Your task to perform on an android device: all mails in gmail Image 0: 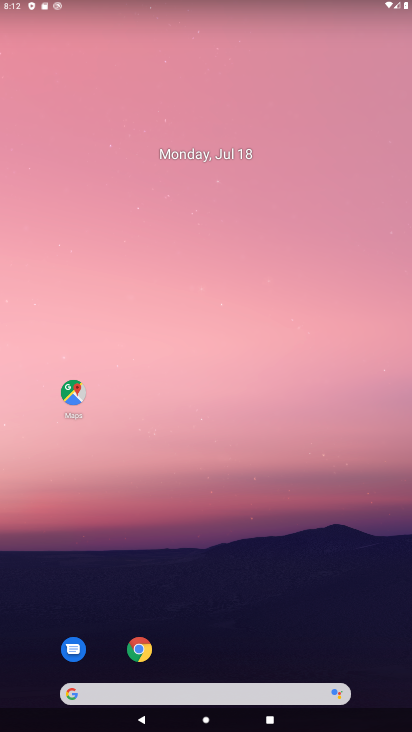
Step 0: drag from (236, 513) to (210, 293)
Your task to perform on an android device: all mails in gmail Image 1: 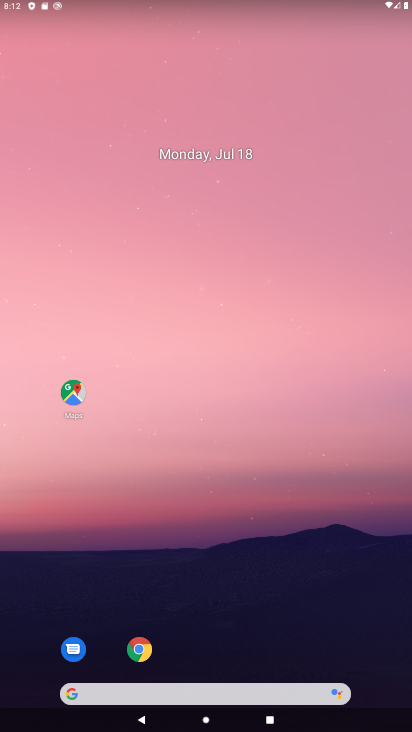
Step 1: drag from (230, 540) to (211, 196)
Your task to perform on an android device: all mails in gmail Image 2: 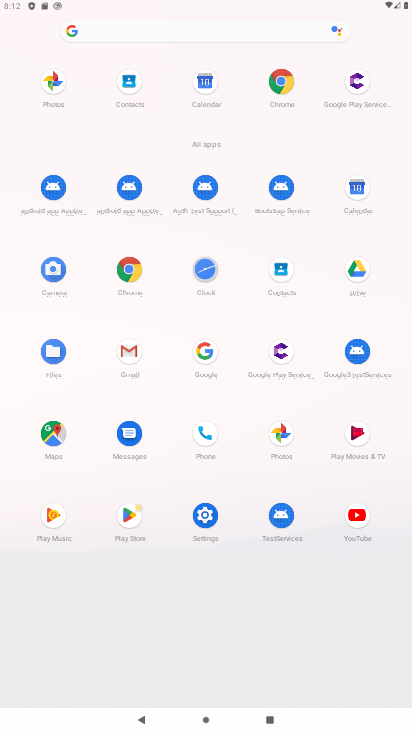
Step 2: drag from (131, 351) to (165, 385)
Your task to perform on an android device: all mails in gmail Image 3: 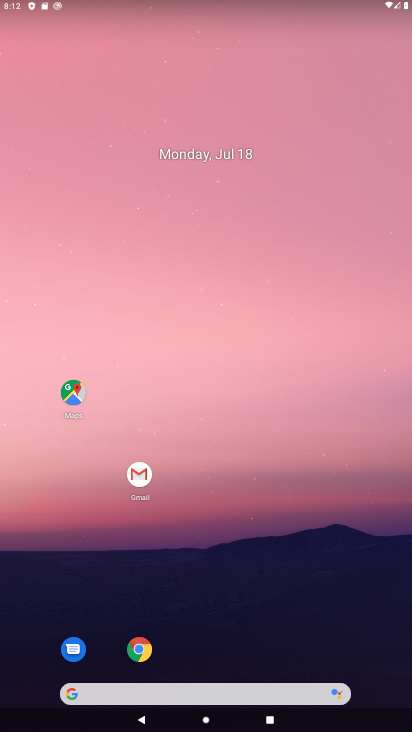
Step 3: click (138, 469)
Your task to perform on an android device: all mails in gmail Image 4: 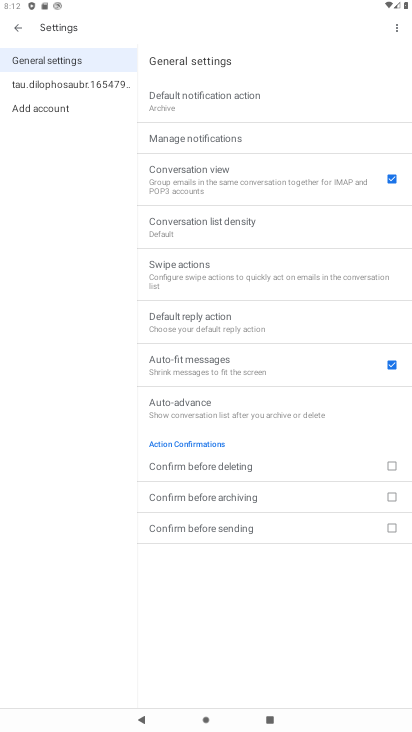
Step 4: click (19, 35)
Your task to perform on an android device: all mails in gmail Image 5: 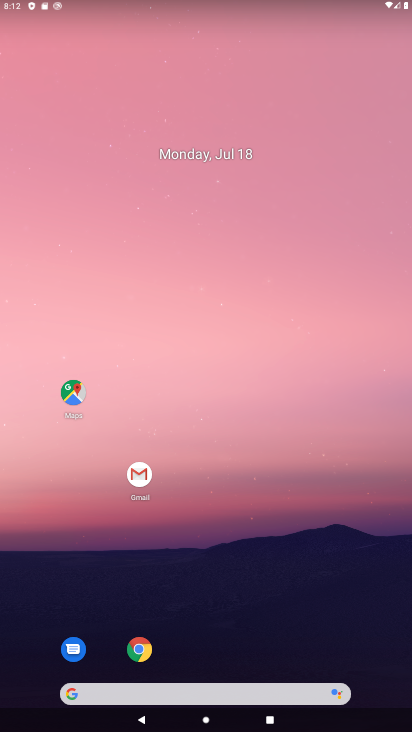
Step 5: click (141, 472)
Your task to perform on an android device: all mails in gmail Image 6: 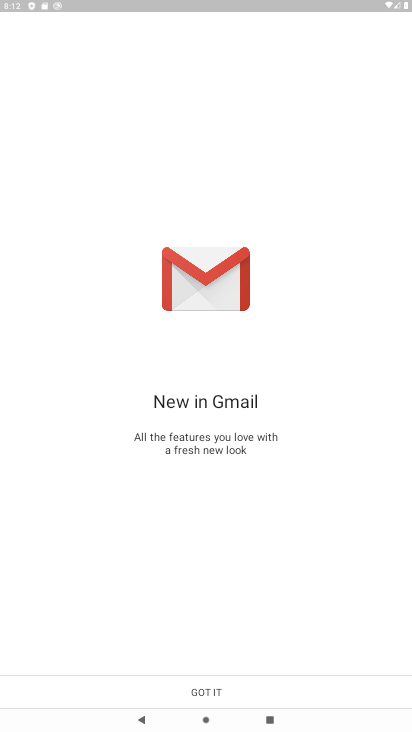
Step 6: click (207, 691)
Your task to perform on an android device: all mails in gmail Image 7: 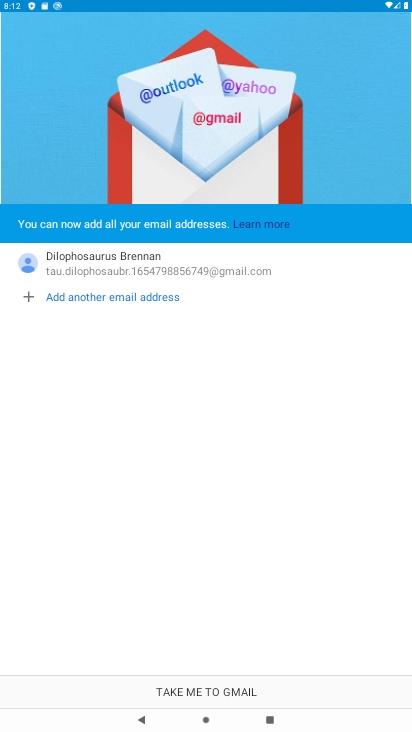
Step 7: click (207, 691)
Your task to perform on an android device: all mails in gmail Image 8: 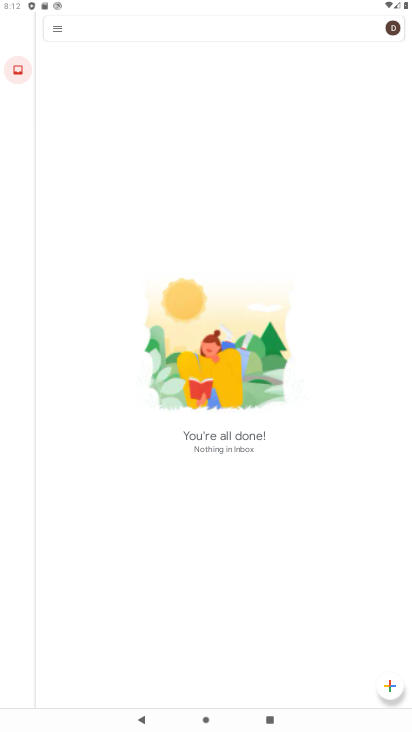
Step 8: click (53, 29)
Your task to perform on an android device: all mails in gmail Image 9: 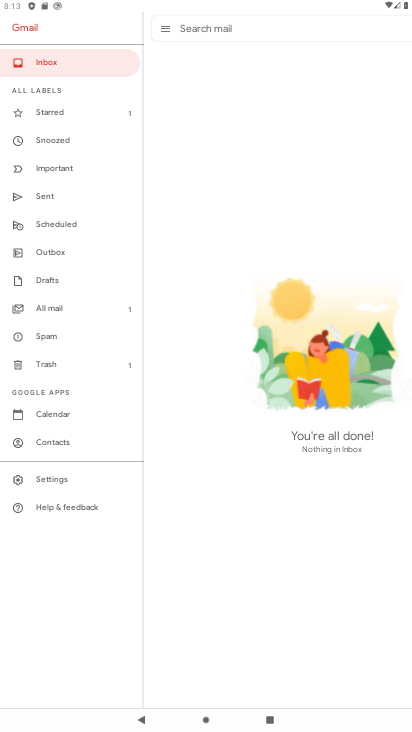
Step 9: click (50, 308)
Your task to perform on an android device: all mails in gmail Image 10: 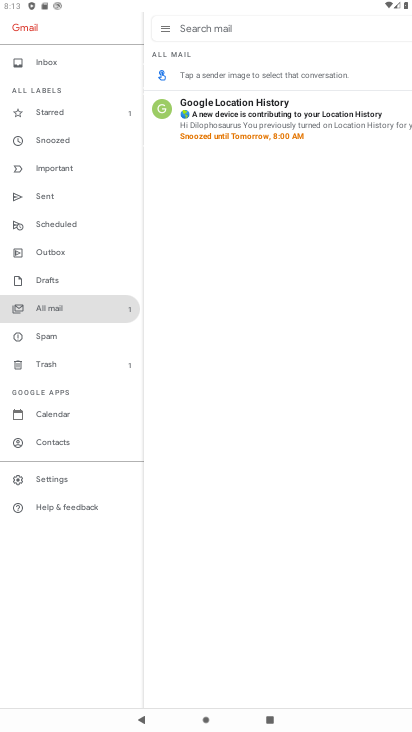
Step 10: task complete